Your task to perform on an android device: Open calendar and show me the third week of next month Image 0: 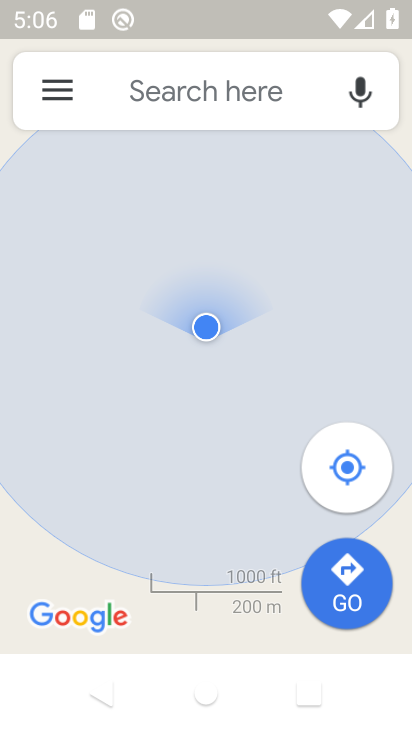
Step 0: press home button
Your task to perform on an android device: Open calendar and show me the third week of next month Image 1: 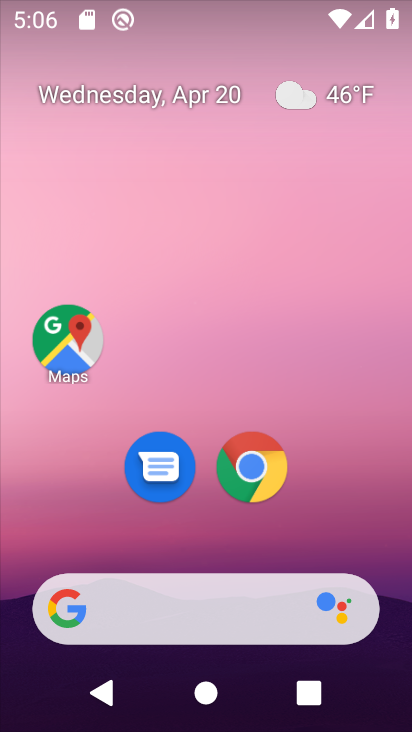
Step 1: drag from (202, 555) to (295, 7)
Your task to perform on an android device: Open calendar and show me the third week of next month Image 2: 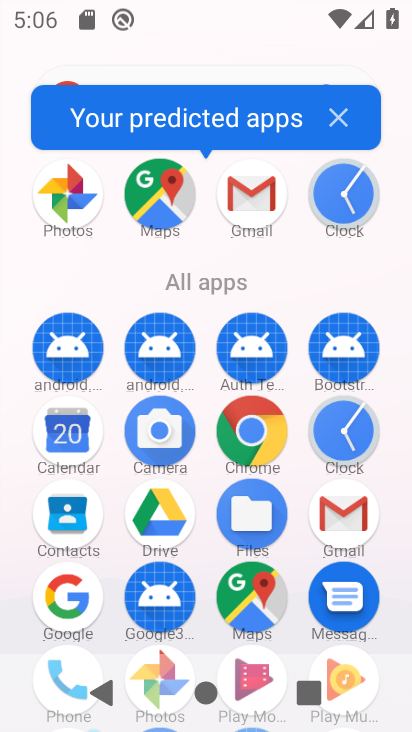
Step 2: click (61, 431)
Your task to perform on an android device: Open calendar and show me the third week of next month Image 3: 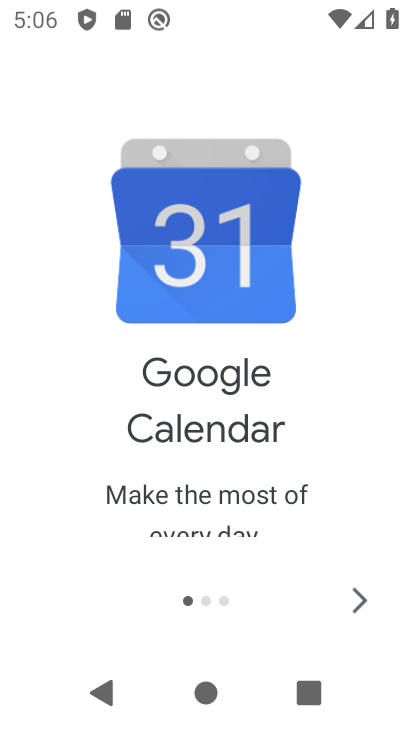
Step 3: click (364, 591)
Your task to perform on an android device: Open calendar and show me the third week of next month Image 4: 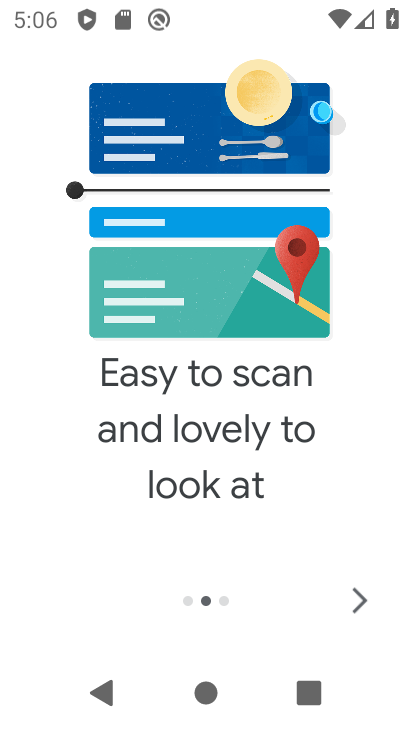
Step 4: click (357, 592)
Your task to perform on an android device: Open calendar and show me the third week of next month Image 5: 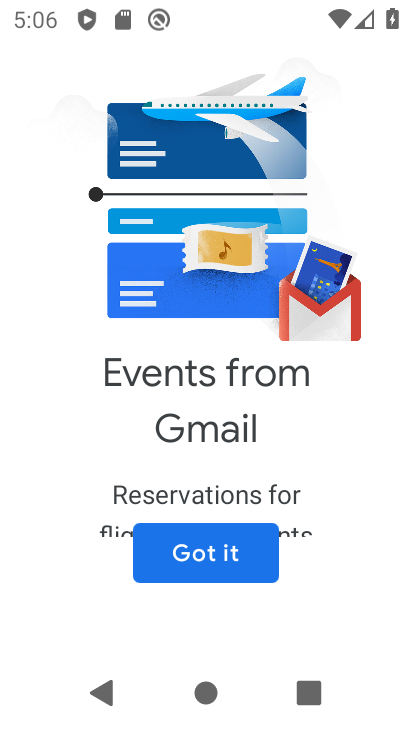
Step 5: click (219, 552)
Your task to perform on an android device: Open calendar and show me the third week of next month Image 6: 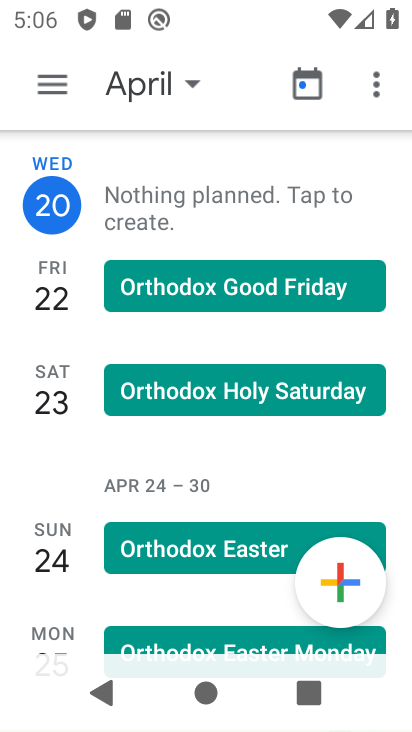
Step 6: click (58, 84)
Your task to perform on an android device: Open calendar and show me the third week of next month Image 7: 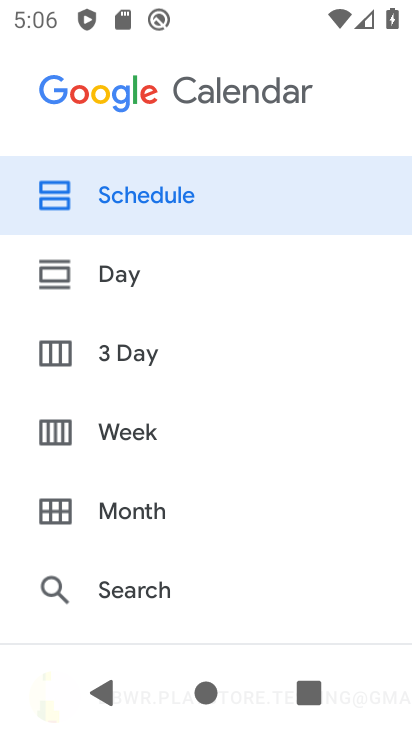
Step 7: click (99, 506)
Your task to perform on an android device: Open calendar and show me the third week of next month Image 8: 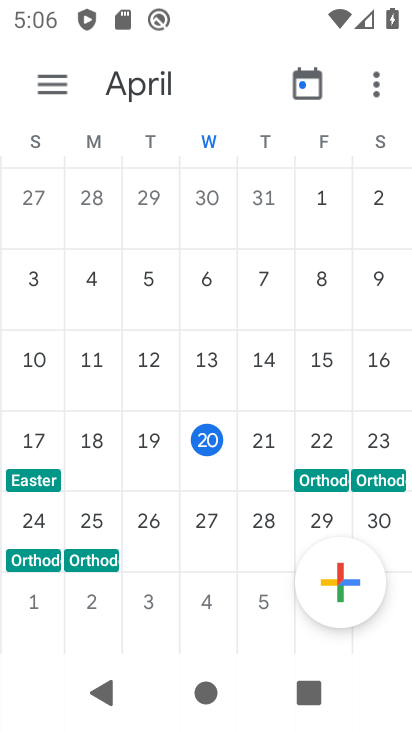
Step 8: drag from (287, 292) to (0, 133)
Your task to perform on an android device: Open calendar and show me the third week of next month Image 9: 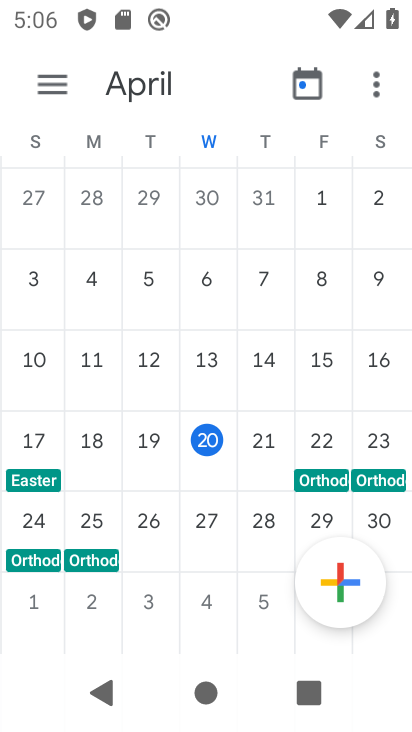
Step 9: drag from (353, 337) to (5, 297)
Your task to perform on an android device: Open calendar and show me the third week of next month Image 10: 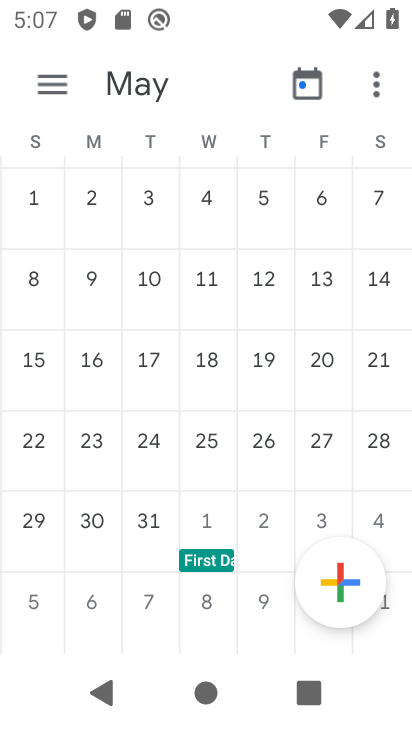
Step 10: click (56, 83)
Your task to perform on an android device: Open calendar and show me the third week of next month Image 11: 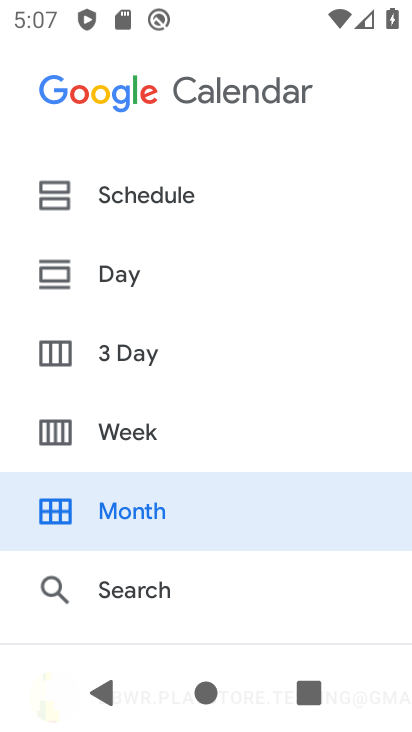
Step 11: click (130, 427)
Your task to perform on an android device: Open calendar and show me the third week of next month Image 12: 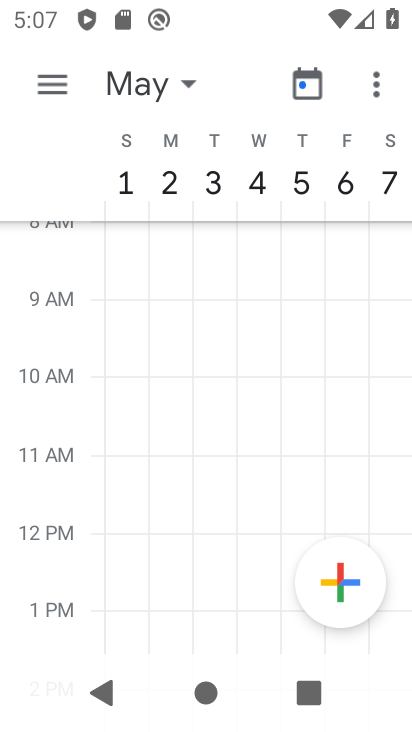
Step 12: task complete